Your task to perform on an android device: turn off improve location accuracy Image 0: 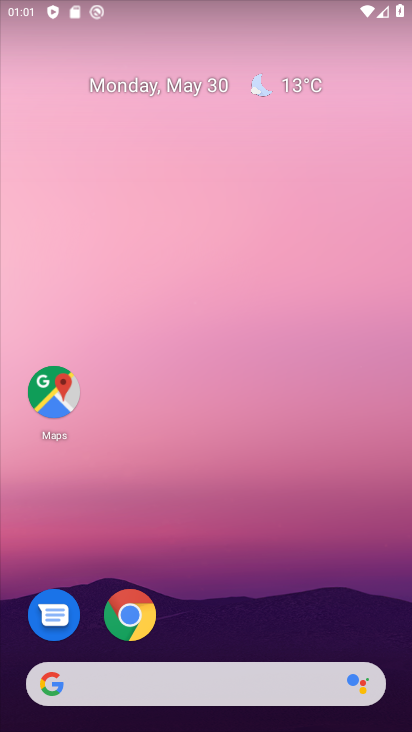
Step 0: drag from (212, 638) to (243, 19)
Your task to perform on an android device: turn off improve location accuracy Image 1: 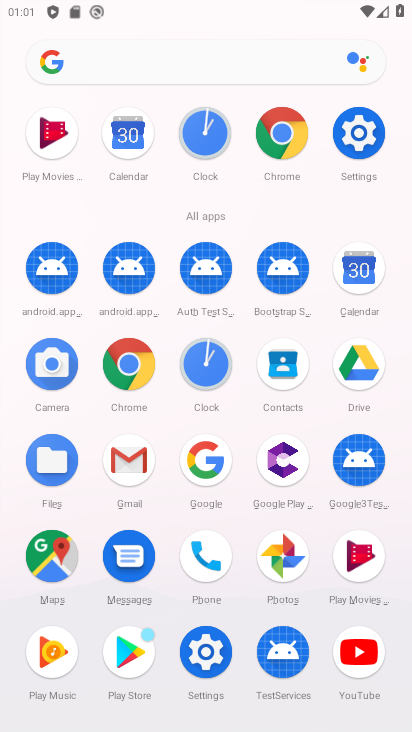
Step 1: click (382, 129)
Your task to perform on an android device: turn off improve location accuracy Image 2: 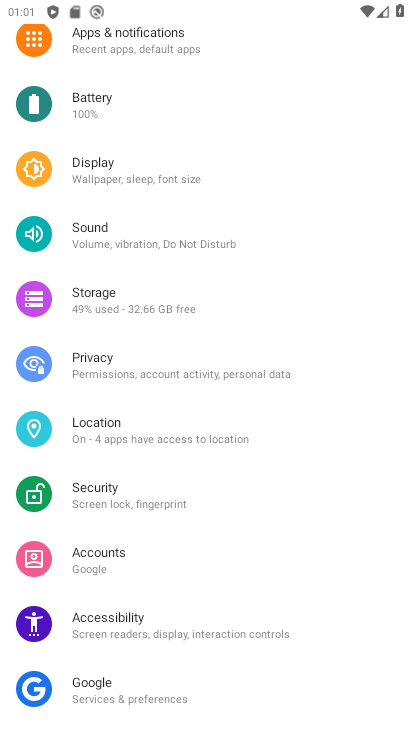
Step 2: click (110, 432)
Your task to perform on an android device: turn off improve location accuracy Image 3: 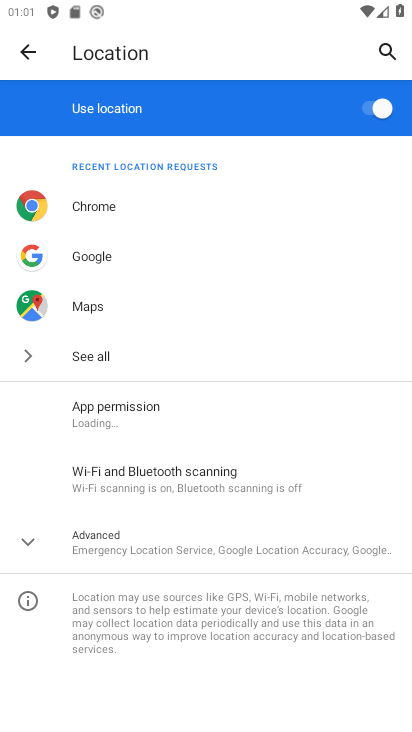
Step 3: click (140, 543)
Your task to perform on an android device: turn off improve location accuracy Image 4: 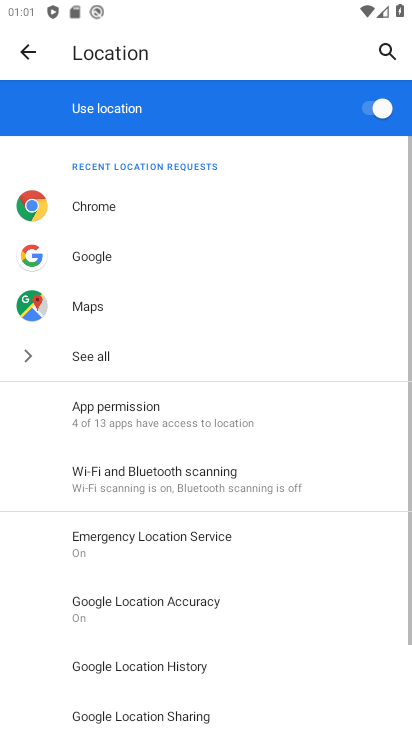
Step 4: click (159, 610)
Your task to perform on an android device: turn off improve location accuracy Image 5: 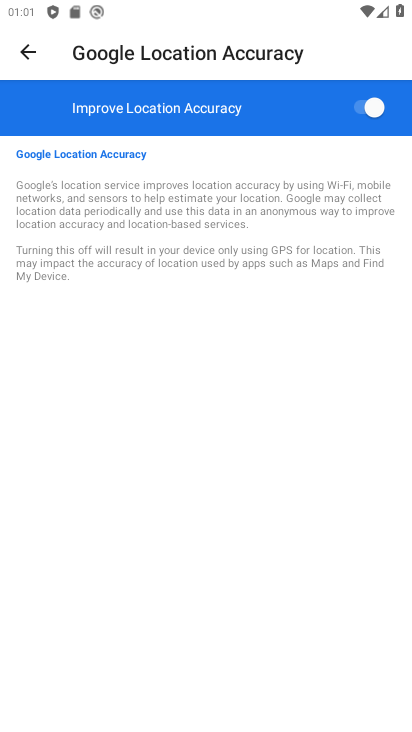
Step 5: click (377, 97)
Your task to perform on an android device: turn off improve location accuracy Image 6: 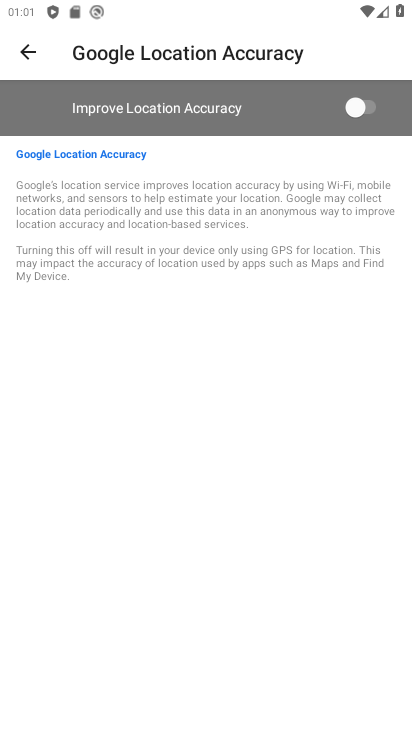
Step 6: task complete